Your task to perform on an android device: Open calendar and show me the fourth week of next month Image 0: 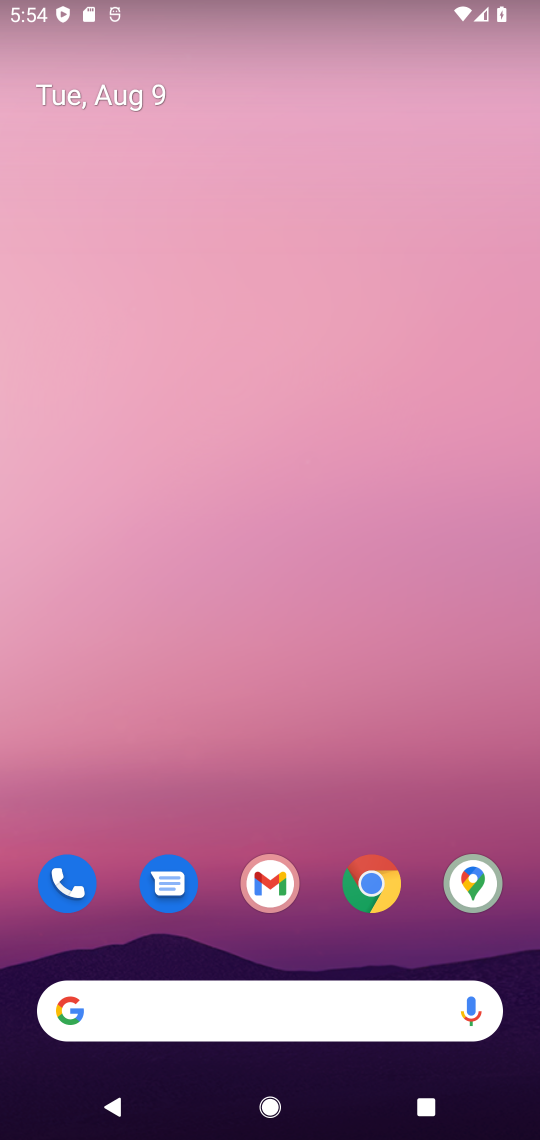
Step 0: drag from (250, 792) to (230, 195)
Your task to perform on an android device: Open calendar and show me the fourth week of next month Image 1: 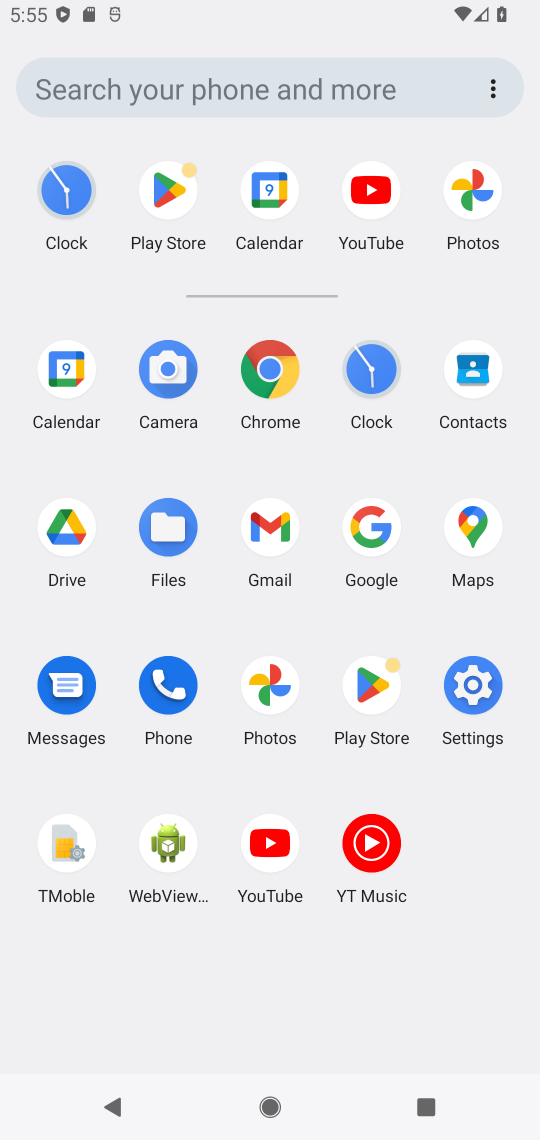
Step 1: click (79, 379)
Your task to perform on an android device: Open calendar and show me the fourth week of next month Image 2: 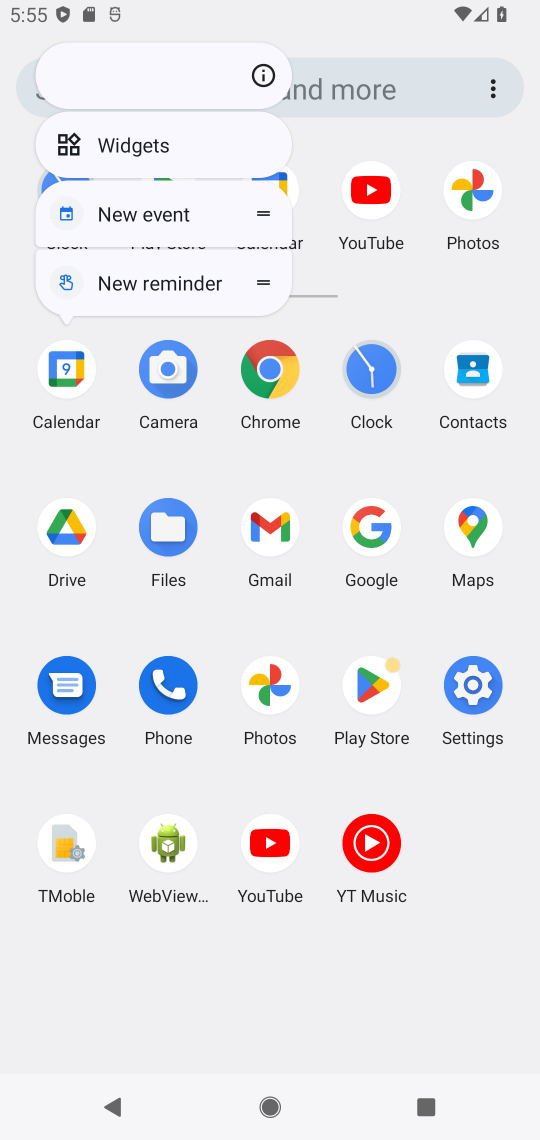
Step 2: click (79, 381)
Your task to perform on an android device: Open calendar and show me the fourth week of next month Image 3: 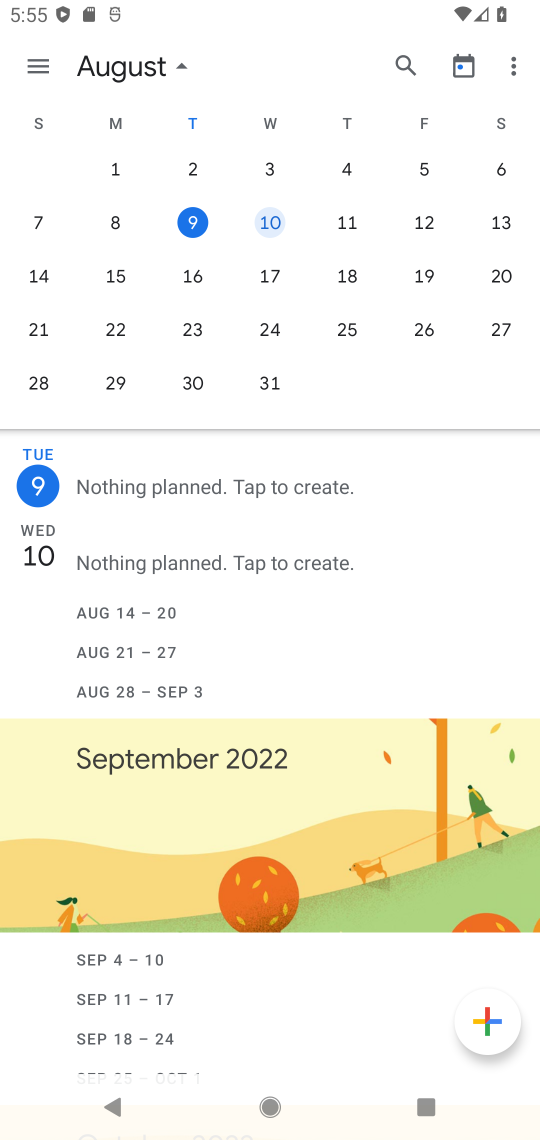
Step 3: drag from (450, 207) to (1, 223)
Your task to perform on an android device: Open calendar and show me the fourth week of next month Image 4: 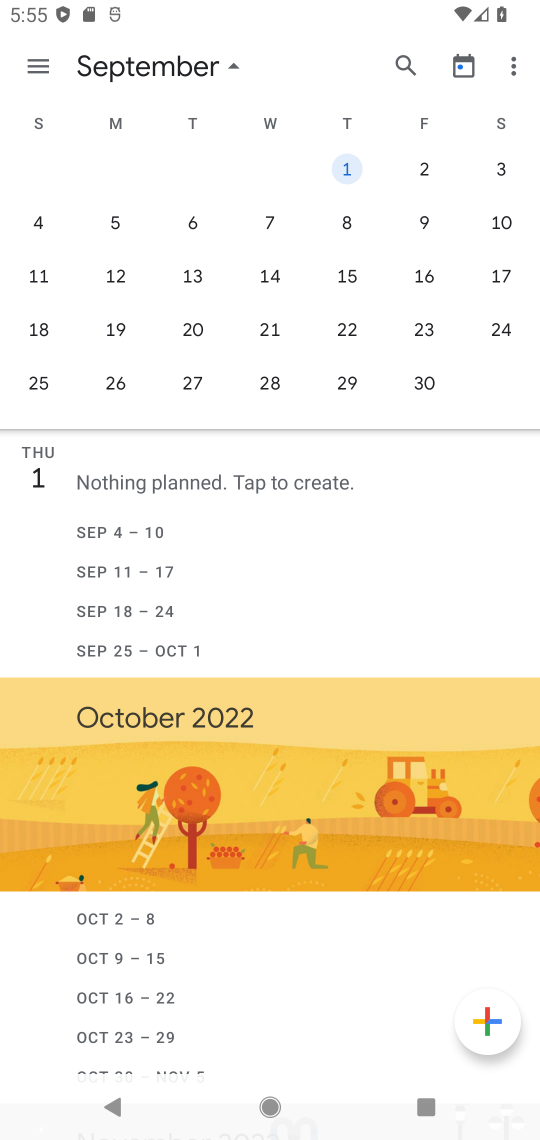
Step 4: click (27, 321)
Your task to perform on an android device: Open calendar and show me the fourth week of next month Image 5: 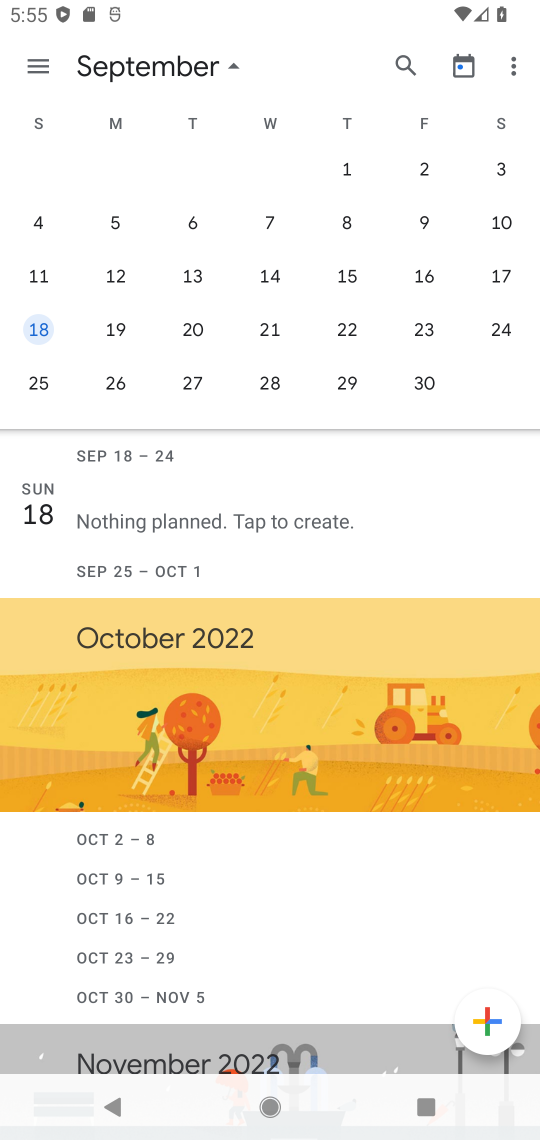
Step 5: click (111, 324)
Your task to perform on an android device: Open calendar and show me the fourth week of next month Image 6: 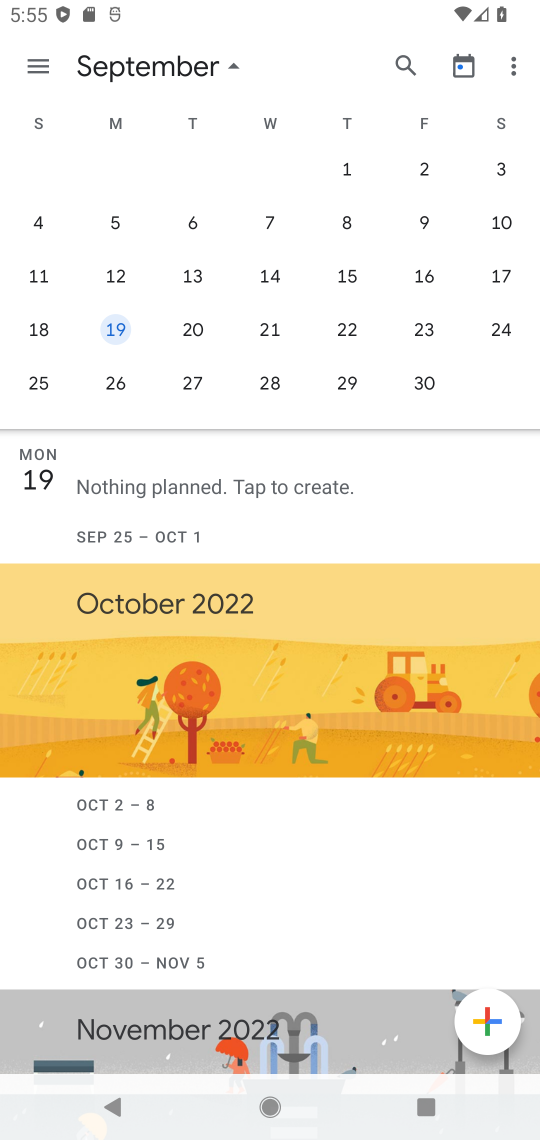
Step 6: task complete